Your task to perform on an android device: search for starred emails in the gmail app Image 0: 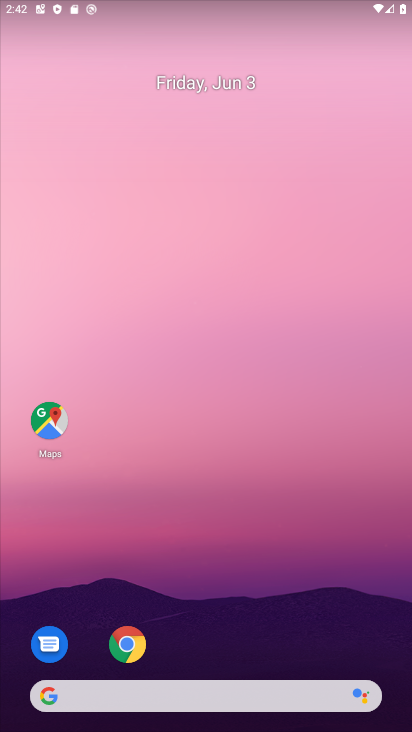
Step 0: drag from (196, 638) to (226, 249)
Your task to perform on an android device: search for starred emails in the gmail app Image 1: 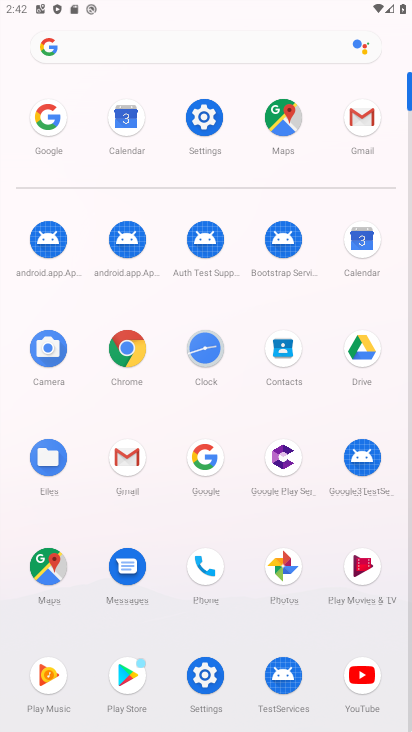
Step 1: click (353, 130)
Your task to perform on an android device: search for starred emails in the gmail app Image 2: 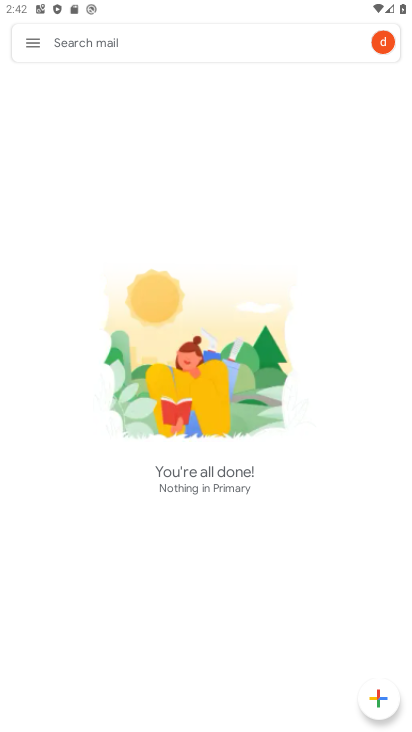
Step 2: click (38, 37)
Your task to perform on an android device: search for starred emails in the gmail app Image 3: 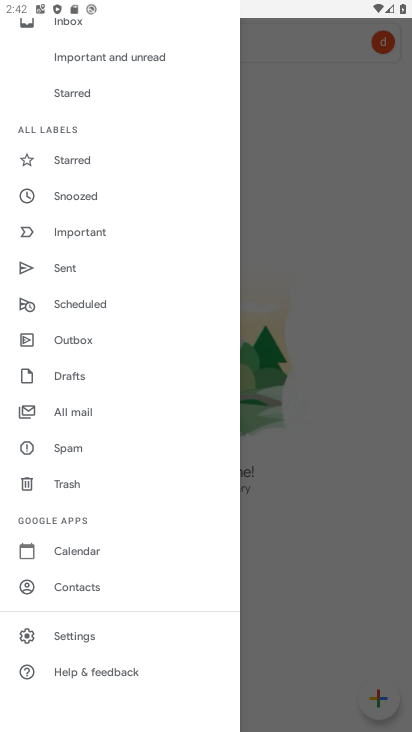
Step 3: click (94, 165)
Your task to perform on an android device: search for starred emails in the gmail app Image 4: 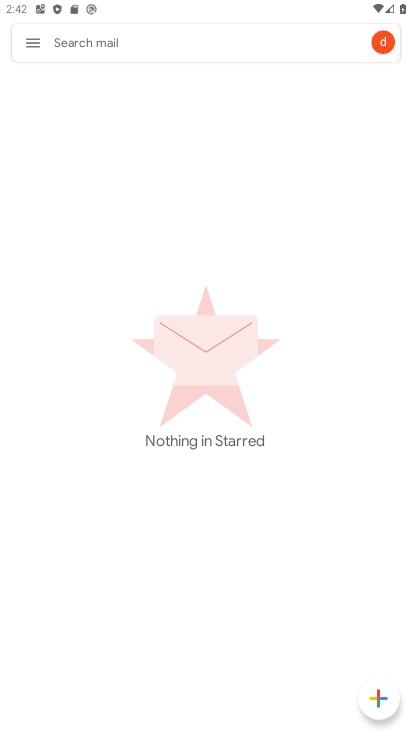
Step 4: task complete